Your task to perform on an android device: How much does a 2 bedroom apartment rent for in Boston? Image 0: 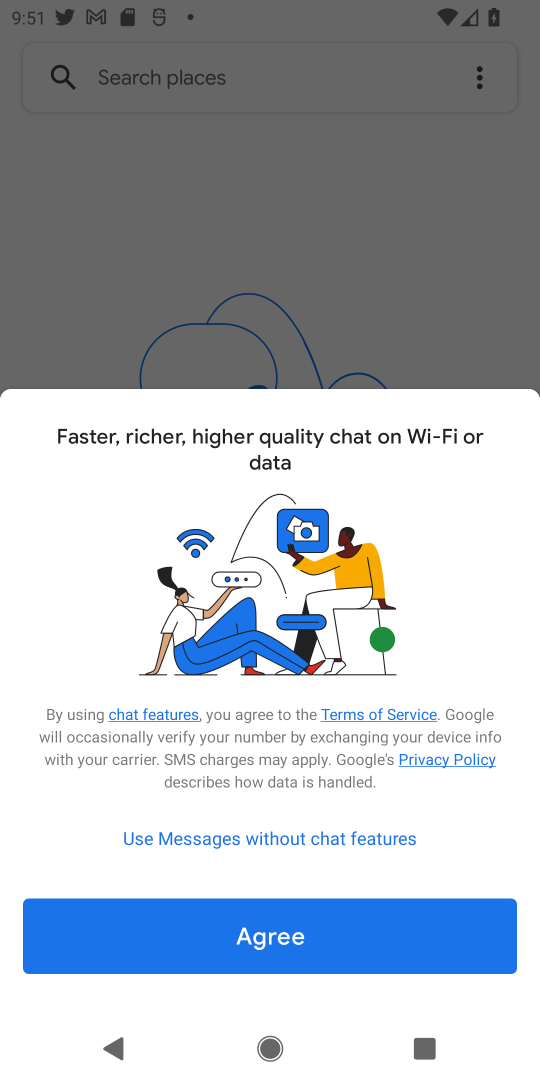
Step 0: press home button
Your task to perform on an android device: How much does a 2 bedroom apartment rent for in Boston? Image 1: 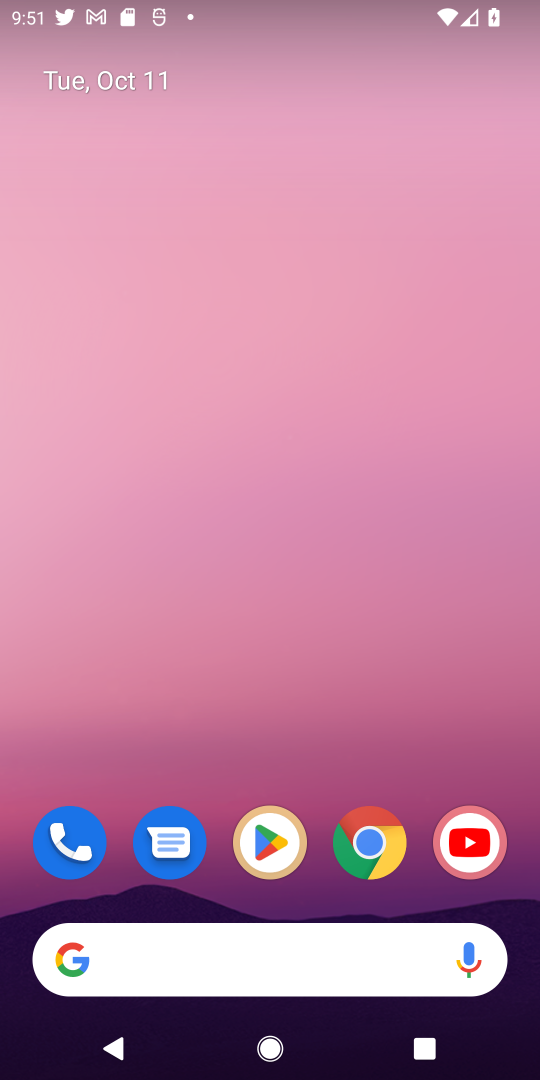
Step 1: click (378, 822)
Your task to perform on an android device: How much does a 2 bedroom apartment rent for in Boston? Image 2: 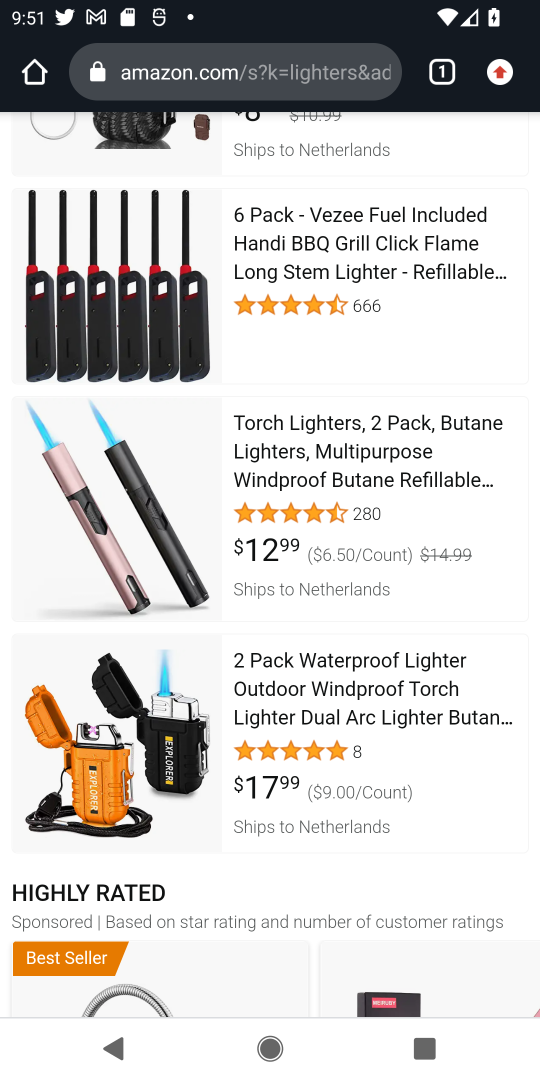
Step 2: click (330, 84)
Your task to perform on an android device: How much does a 2 bedroom apartment rent for in Boston? Image 3: 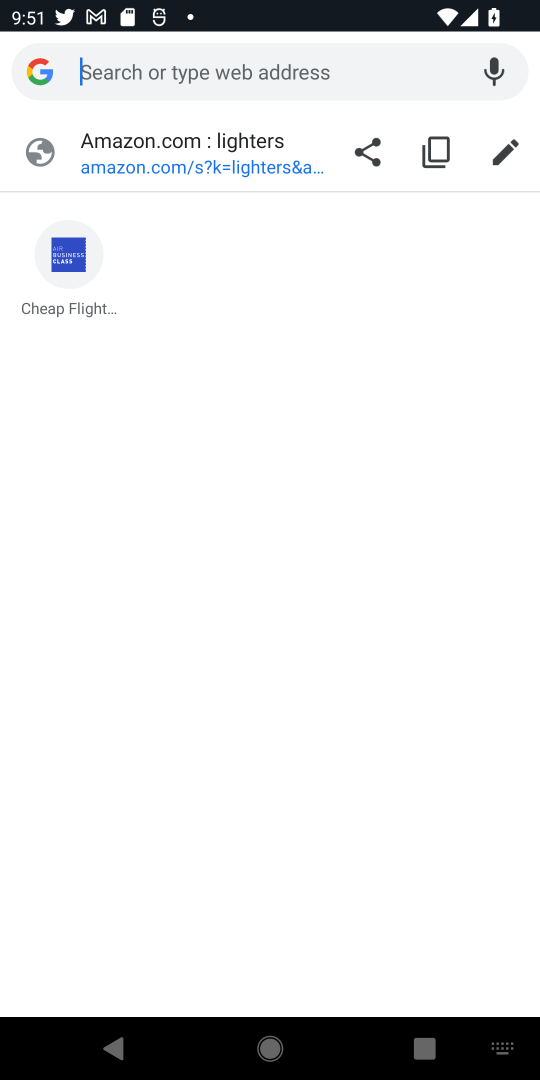
Step 3: type "2 bedroom apartment rent for in boston"
Your task to perform on an android device: How much does a 2 bedroom apartment rent for in Boston? Image 4: 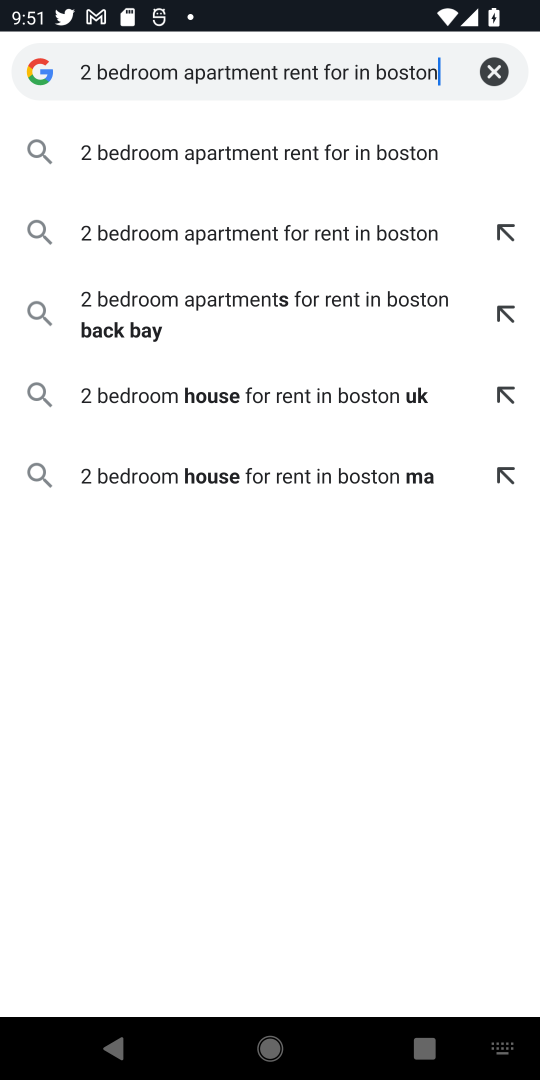
Step 4: click (325, 153)
Your task to perform on an android device: How much does a 2 bedroom apartment rent for in Boston? Image 5: 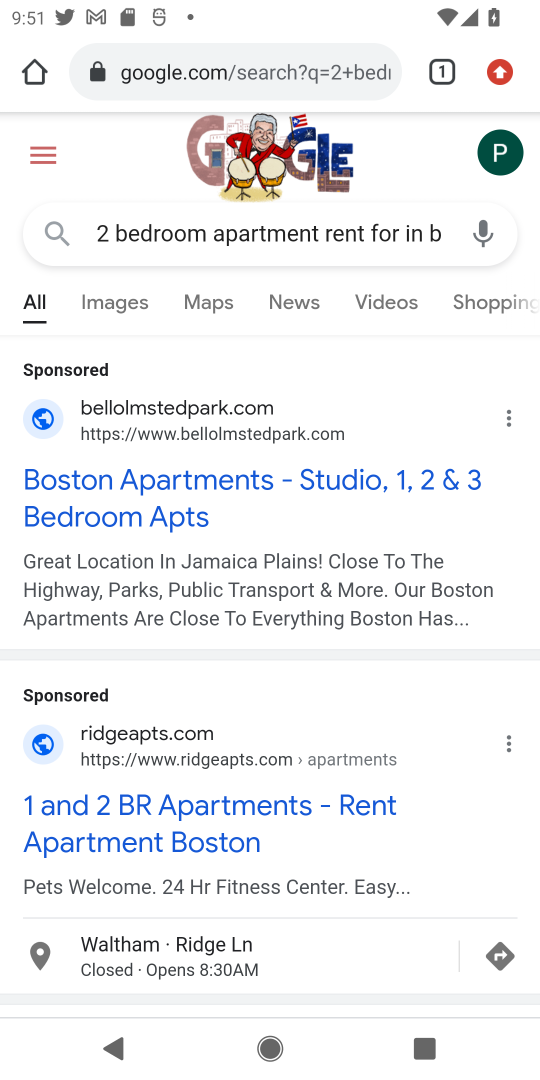
Step 5: drag from (265, 703) to (334, 181)
Your task to perform on an android device: How much does a 2 bedroom apartment rent for in Boston? Image 6: 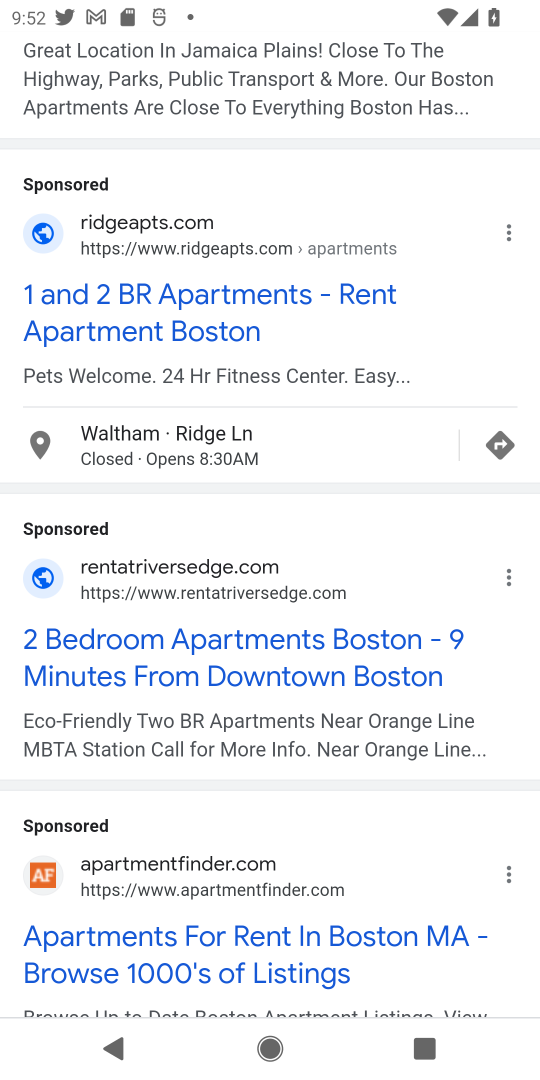
Step 6: click (224, 639)
Your task to perform on an android device: How much does a 2 bedroom apartment rent for in Boston? Image 7: 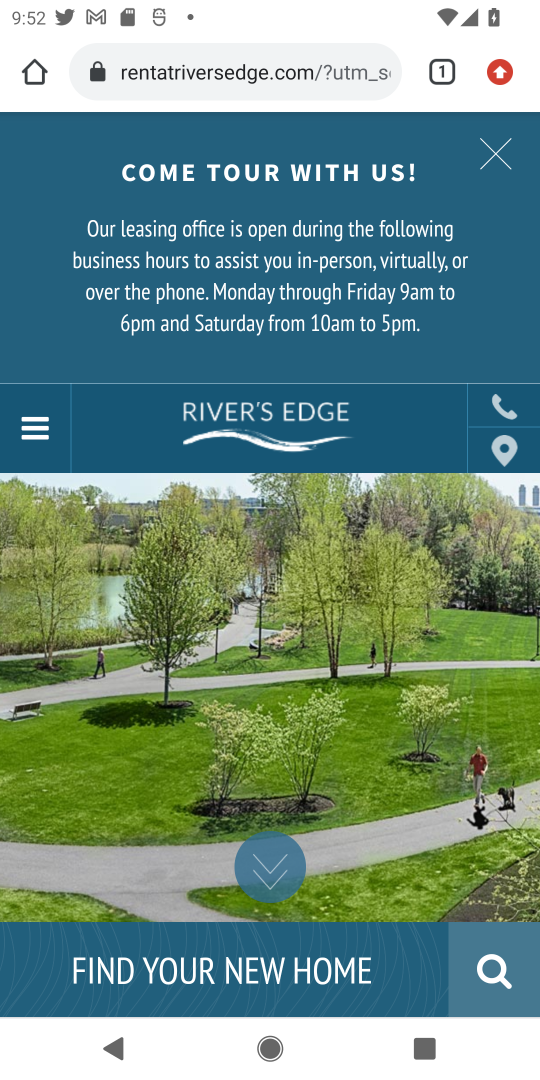
Step 7: drag from (307, 780) to (422, 278)
Your task to perform on an android device: How much does a 2 bedroom apartment rent for in Boston? Image 8: 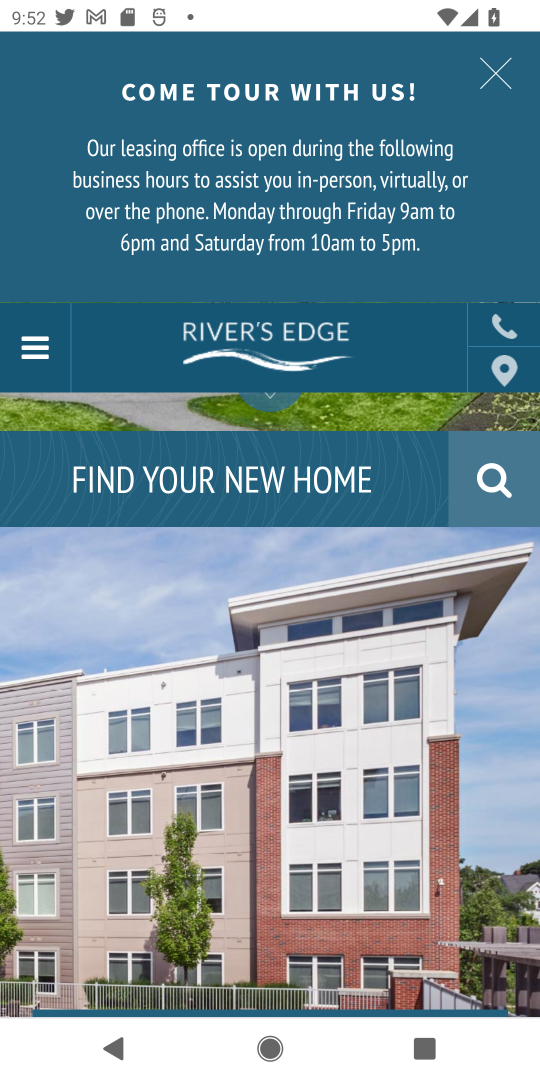
Step 8: drag from (278, 748) to (315, 215)
Your task to perform on an android device: How much does a 2 bedroom apartment rent for in Boston? Image 9: 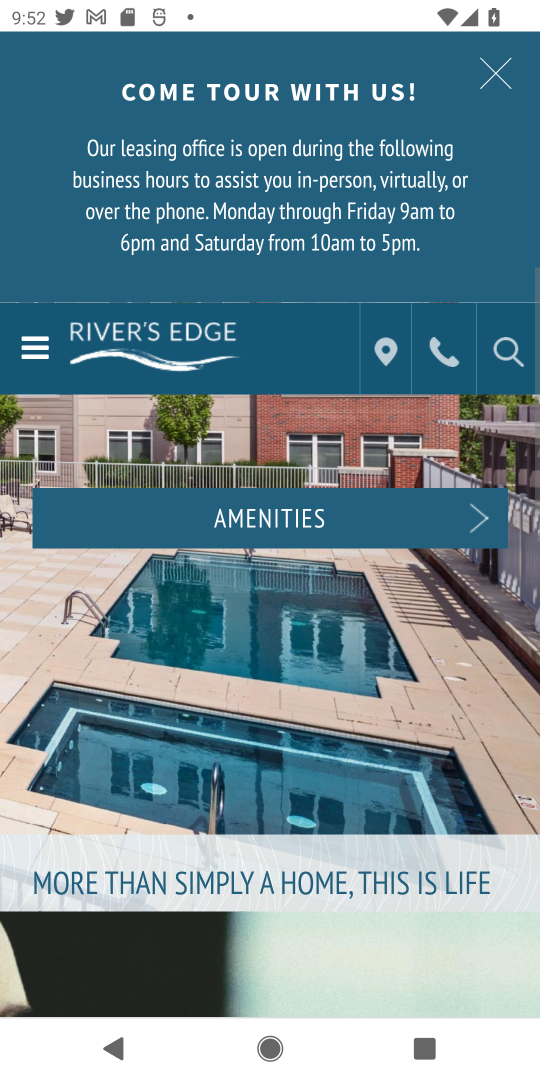
Step 9: drag from (327, 873) to (412, 218)
Your task to perform on an android device: How much does a 2 bedroom apartment rent for in Boston? Image 10: 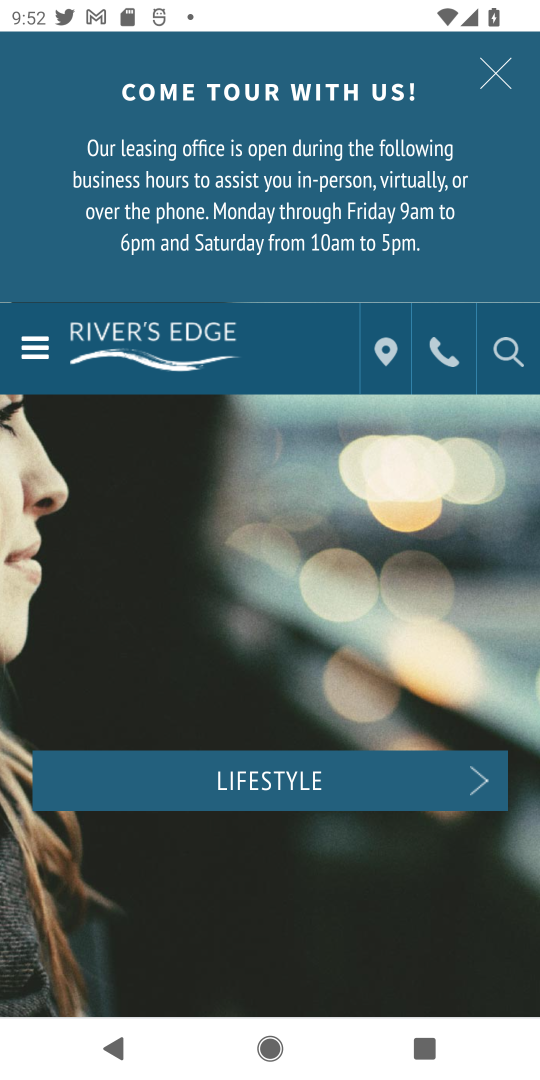
Step 10: click (490, 73)
Your task to perform on an android device: How much does a 2 bedroom apartment rent for in Boston? Image 11: 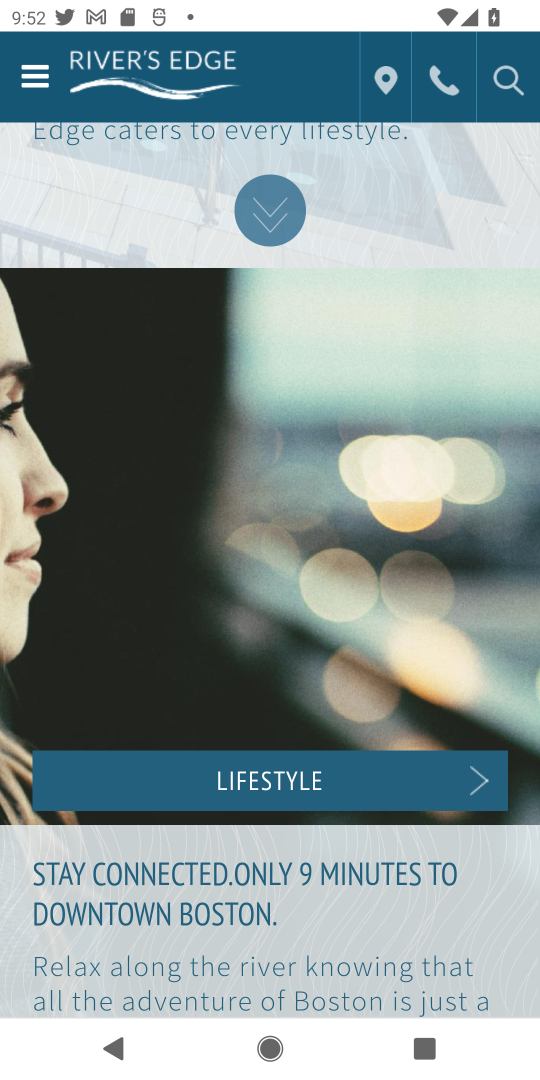
Step 11: task complete